Your task to perform on an android device: Open battery settings Image 0: 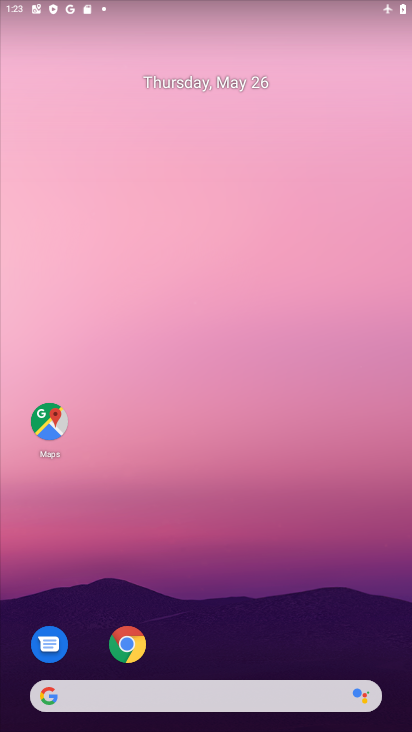
Step 0: drag from (290, 560) to (278, 146)
Your task to perform on an android device: Open battery settings Image 1: 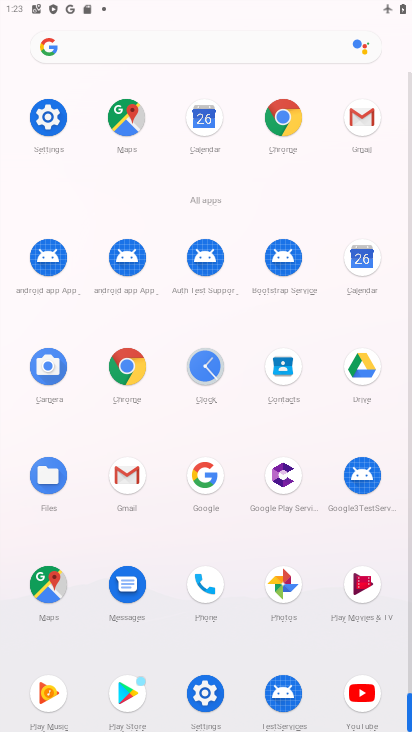
Step 1: click (36, 118)
Your task to perform on an android device: Open battery settings Image 2: 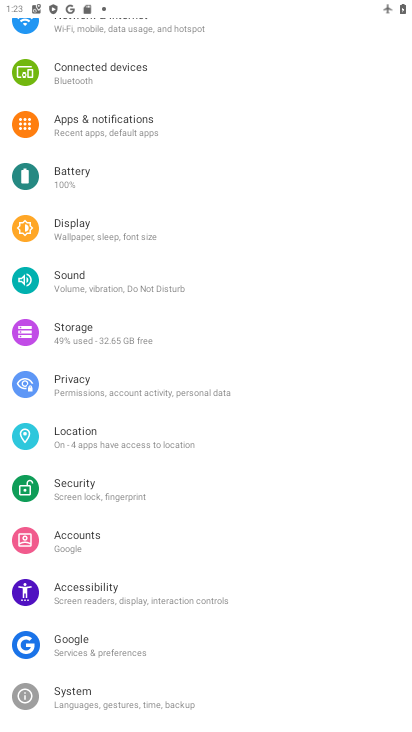
Step 2: click (102, 180)
Your task to perform on an android device: Open battery settings Image 3: 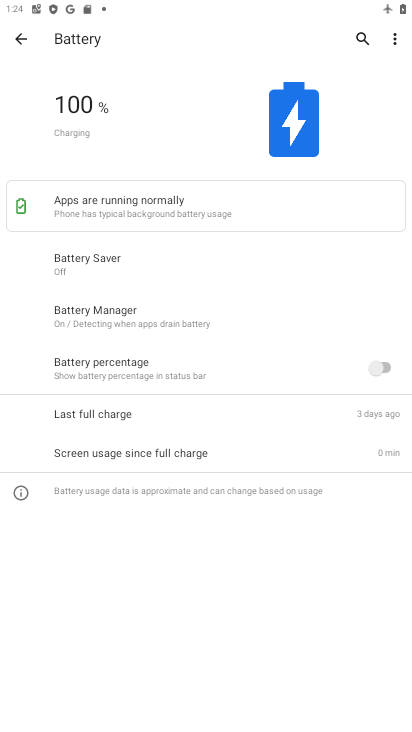
Step 3: task complete